Your task to perform on an android device: turn pop-ups off in chrome Image 0: 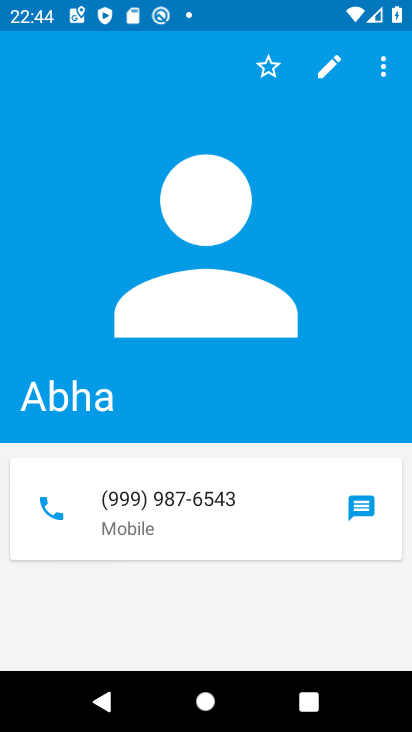
Step 0: press home button
Your task to perform on an android device: turn pop-ups off in chrome Image 1: 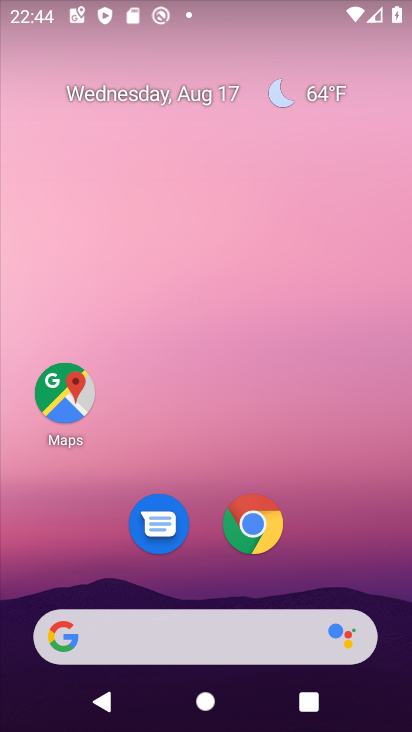
Step 1: drag from (296, 527) to (328, 18)
Your task to perform on an android device: turn pop-ups off in chrome Image 2: 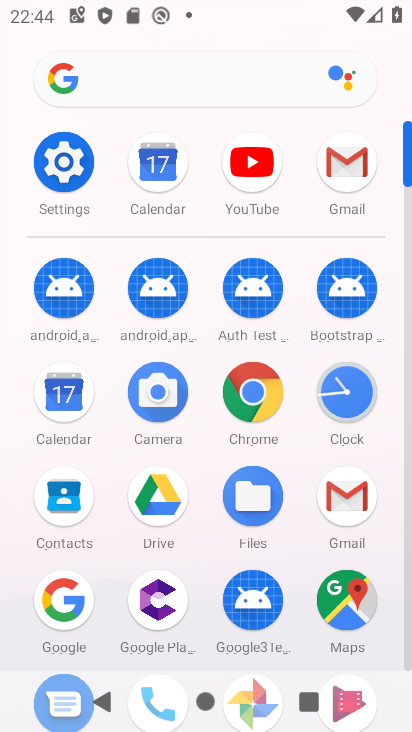
Step 2: click (247, 384)
Your task to perform on an android device: turn pop-ups off in chrome Image 3: 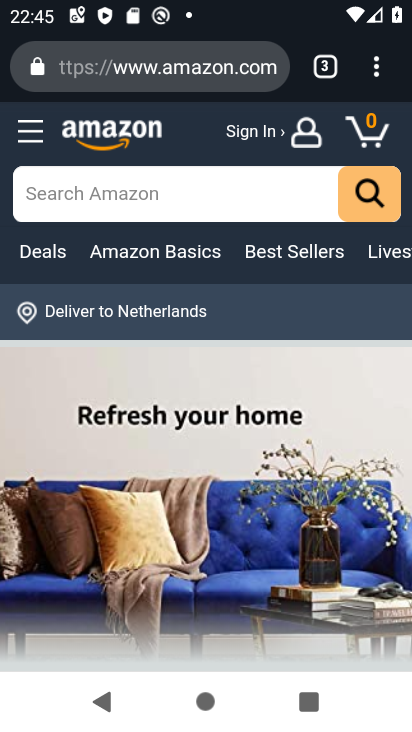
Step 3: click (376, 70)
Your task to perform on an android device: turn pop-ups off in chrome Image 4: 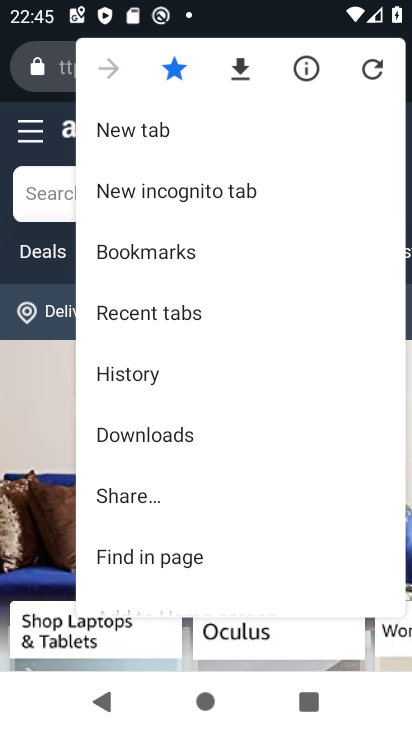
Step 4: drag from (244, 463) to (263, 145)
Your task to perform on an android device: turn pop-ups off in chrome Image 5: 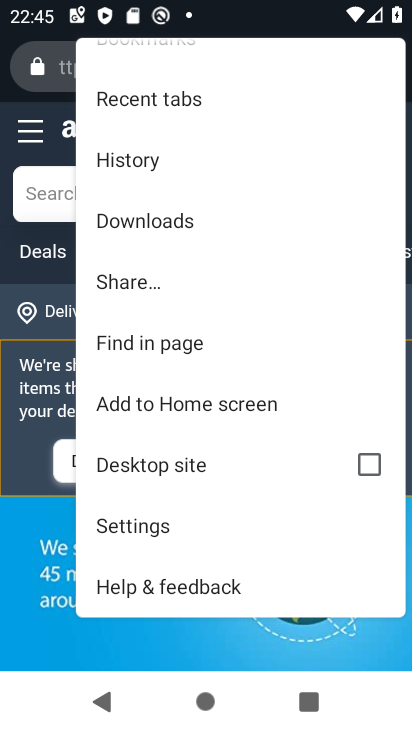
Step 5: click (167, 525)
Your task to perform on an android device: turn pop-ups off in chrome Image 6: 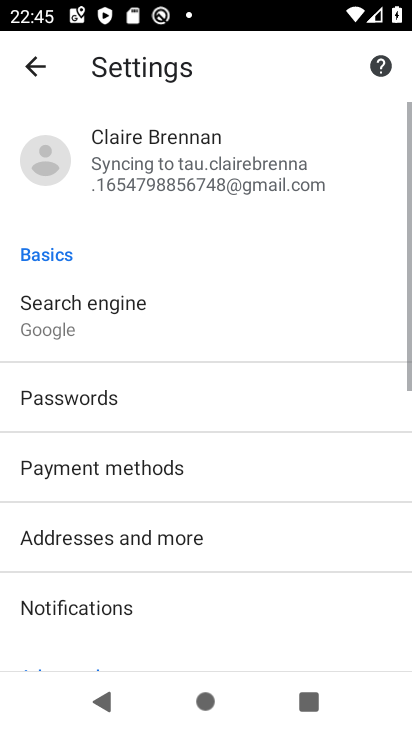
Step 6: drag from (192, 539) to (212, 129)
Your task to perform on an android device: turn pop-ups off in chrome Image 7: 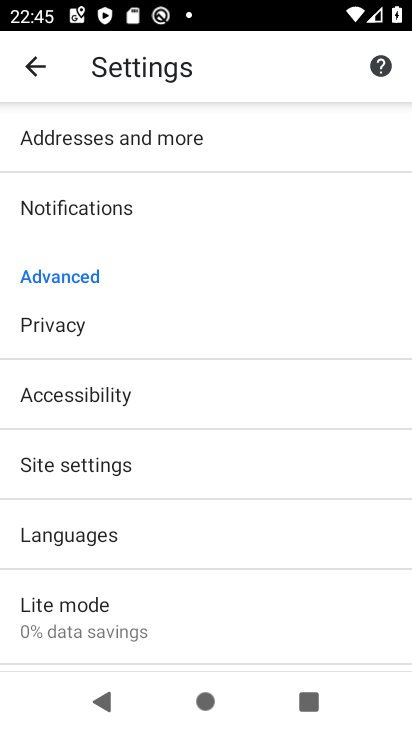
Step 7: click (152, 464)
Your task to perform on an android device: turn pop-ups off in chrome Image 8: 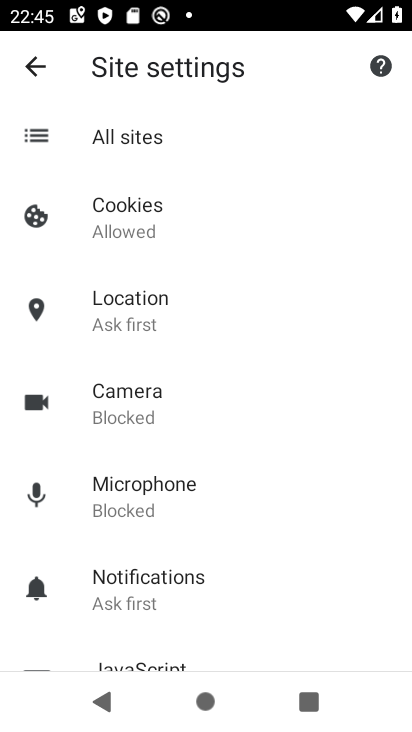
Step 8: drag from (263, 541) to (266, 244)
Your task to perform on an android device: turn pop-ups off in chrome Image 9: 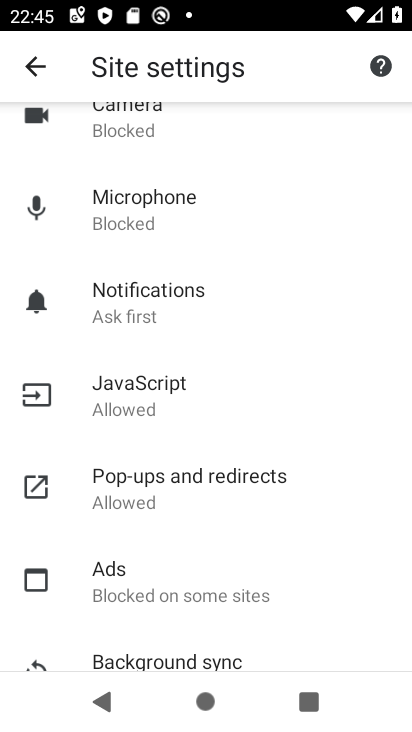
Step 9: click (257, 488)
Your task to perform on an android device: turn pop-ups off in chrome Image 10: 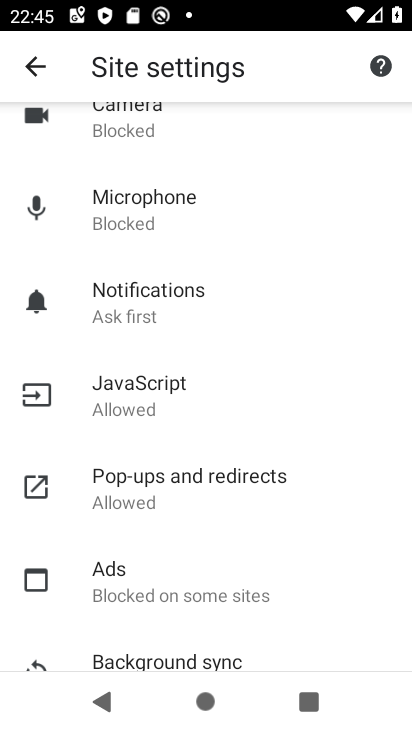
Step 10: click (257, 488)
Your task to perform on an android device: turn pop-ups off in chrome Image 11: 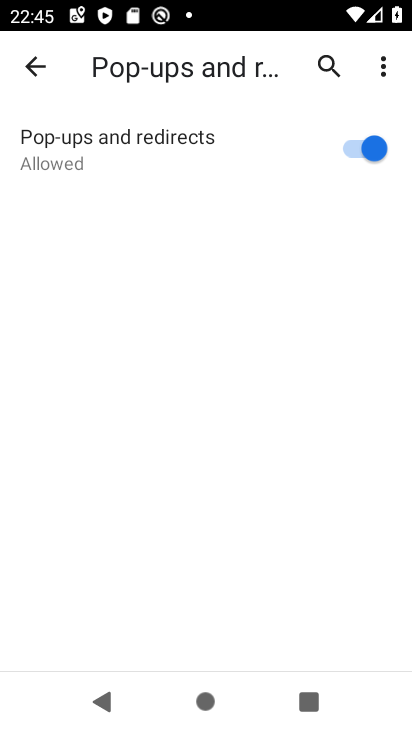
Step 11: click (361, 136)
Your task to perform on an android device: turn pop-ups off in chrome Image 12: 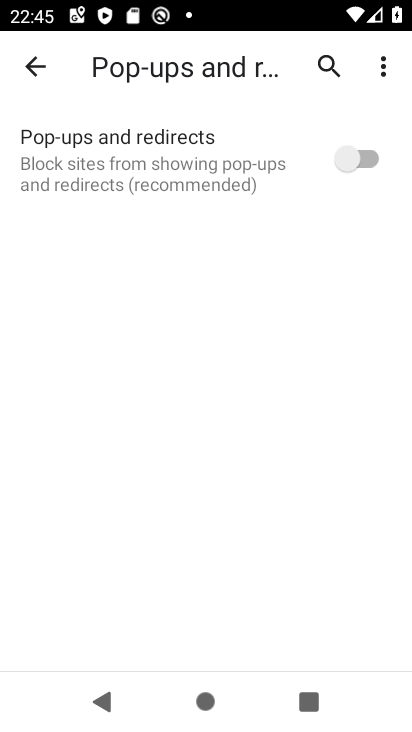
Step 12: task complete